Your task to perform on an android device: Open battery settings Image 0: 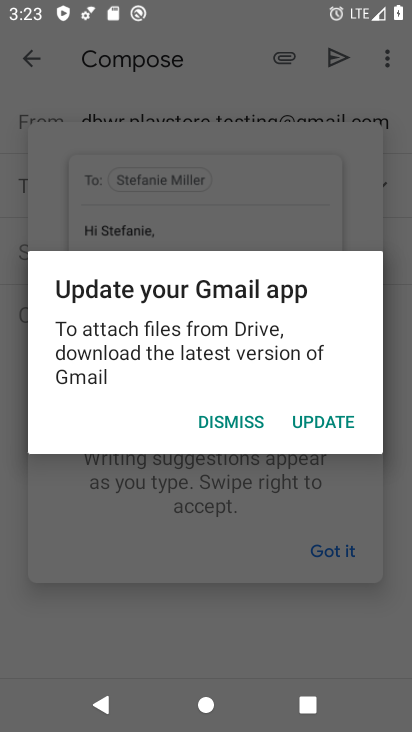
Step 0: press back button
Your task to perform on an android device: Open battery settings Image 1: 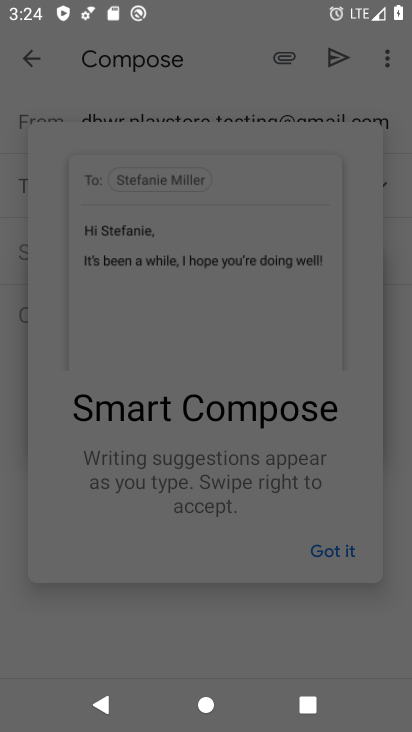
Step 1: press home button
Your task to perform on an android device: Open battery settings Image 2: 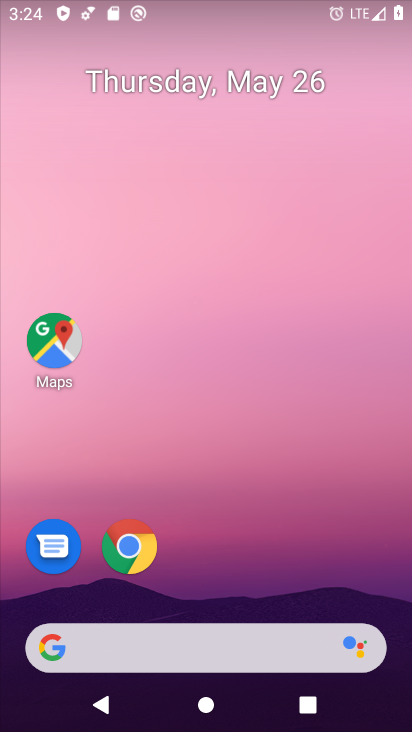
Step 2: drag from (224, 542) to (270, 15)
Your task to perform on an android device: Open battery settings Image 3: 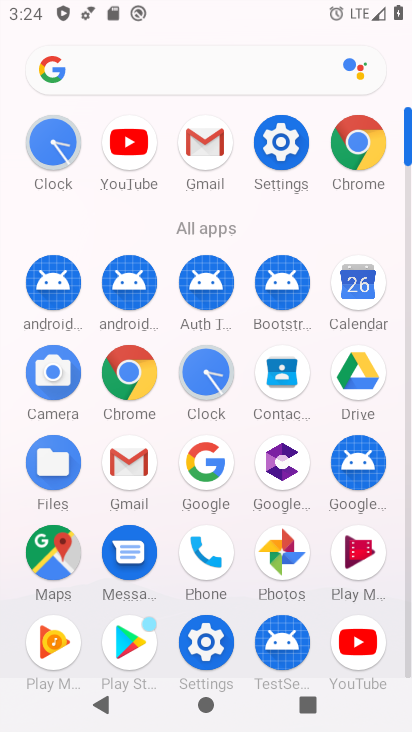
Step 3: click (273, 141)
Your task to perform on an android device: Open battery settings Image 4: 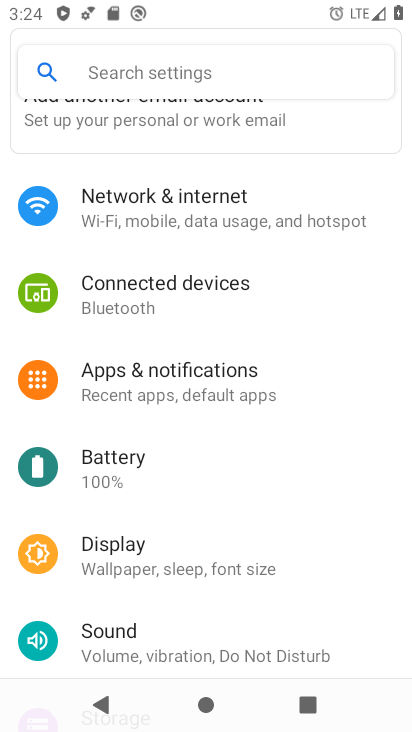
Step 4: click (110, 464)
Your task to perform on an android device: Open battery settings Image 5: 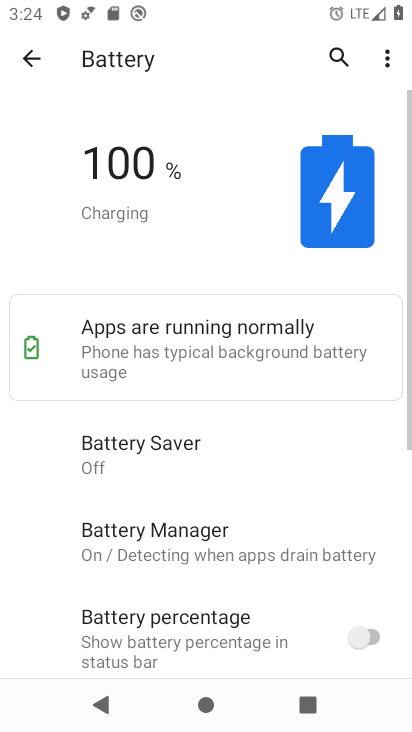
Step 5: task complete